Your task to perform on an android device: check android version Image 0: 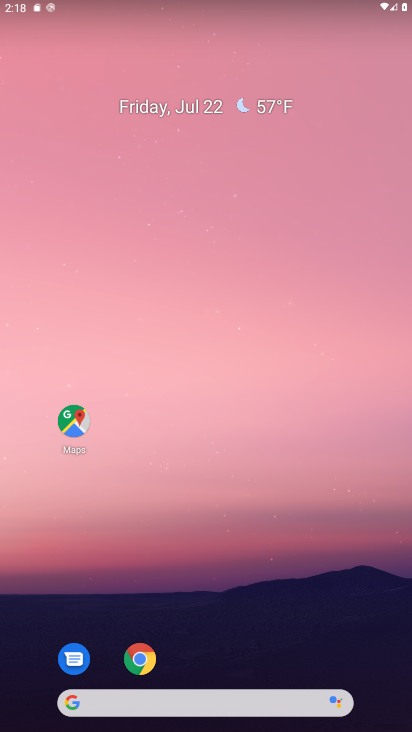
Step 0: drag from (346, 654) to (253, 270)
Your task to perform on an android device: check android version Image 1: 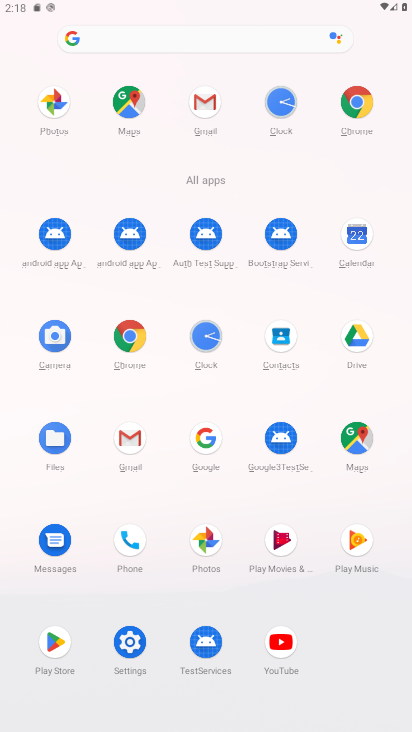
Step 1: click (129, 635)
Your task to perform on an android device: check android version Image 2: 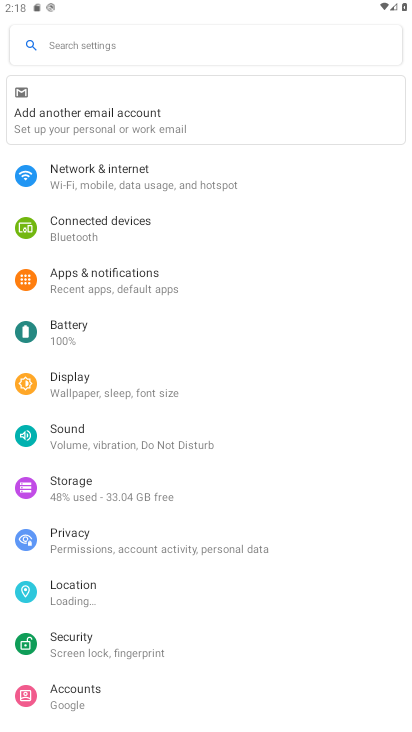
Step 2: drag from (238, 680) to (192, 243)
Your task to perform on an android device: check android version Image 3: 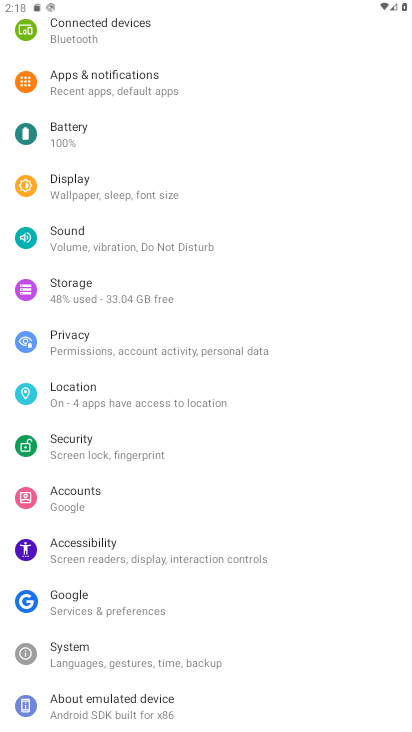
Step 3: click (188, 694)
Your task to perform on an android device: check android version Image 4: 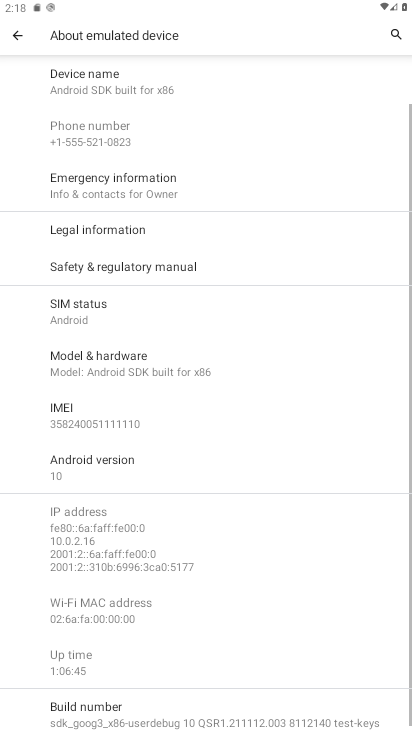
Step 4: click (162, 471)
Your task to perform on an android device: check android version Image 5: 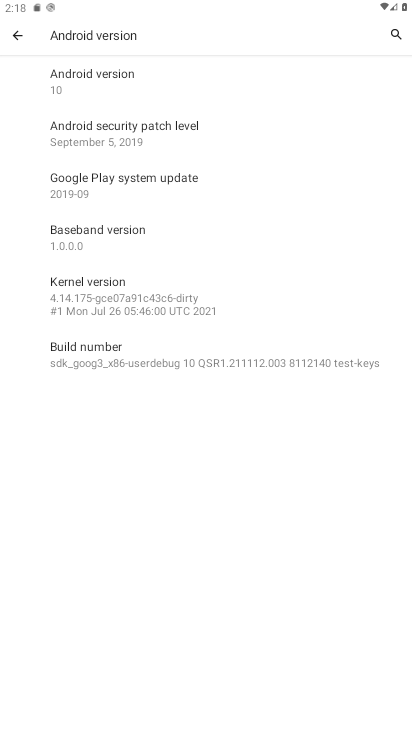
Step 5: task complete